Your task to perform on an android device: add a contact in the contacts app Image 0: 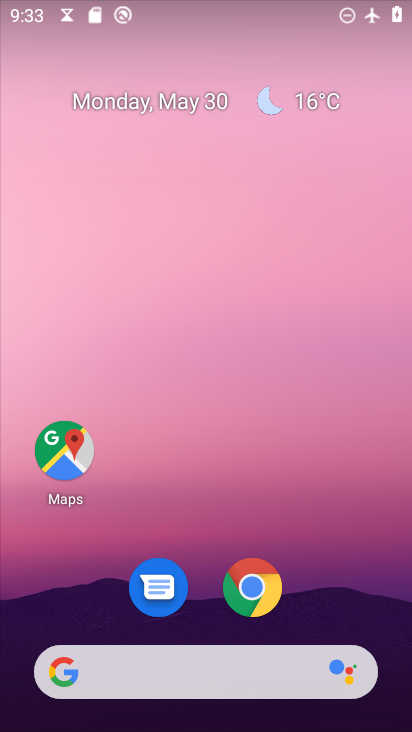
Step 0: drag from (155, 677) to (341, 141)
Your task to perform on an android device: add a contact in the contacts app Image 1: 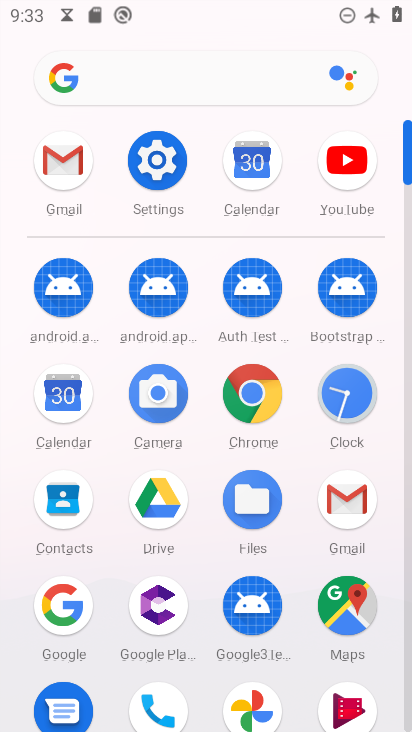
Step 1: click (65, 511)
Your task to perform on an android device: add a contact in the contacts app Image 2: 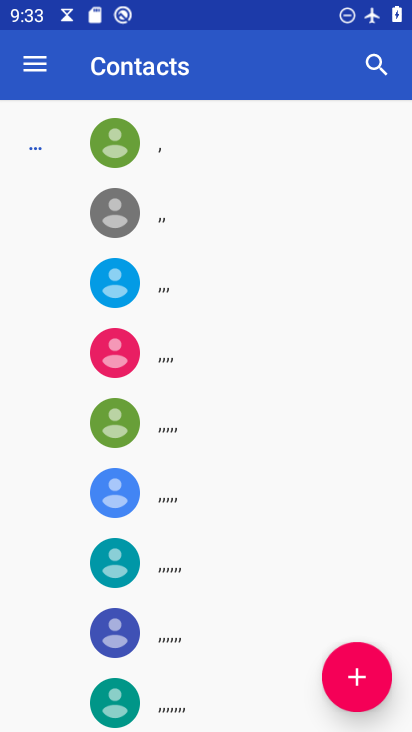
Step 2: click (354, 684)
Your task to perform on an android device: add a contact in the contacts app Image 3: 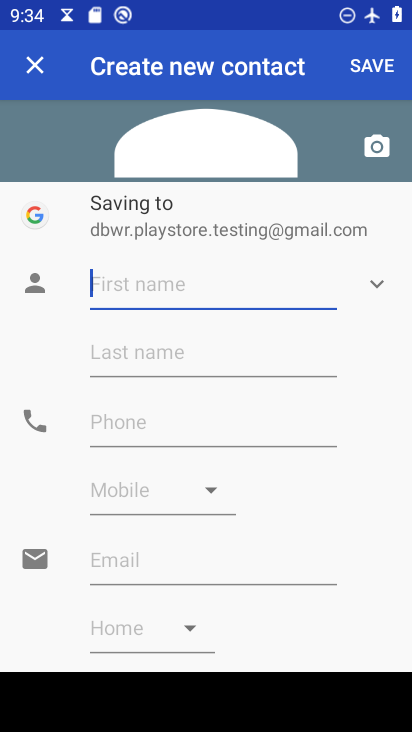
Step 3: type "mjuiii"
Your task to perform on an android device: add a contact in the contacts app Image 4: 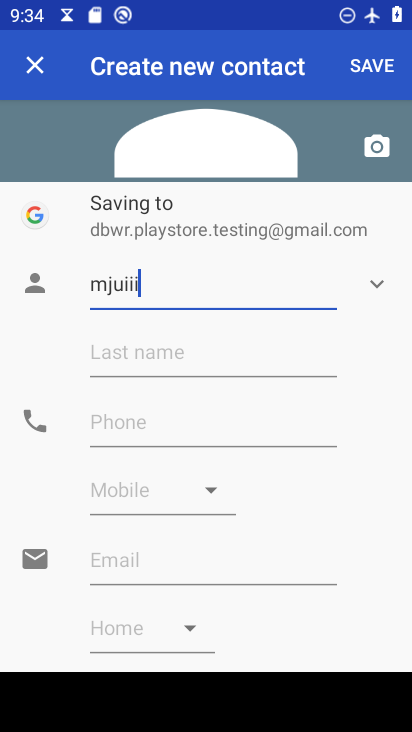
Step 4: click (135, 424)
Your task to perform on an android device: add a contact in the contacts app Image 5: 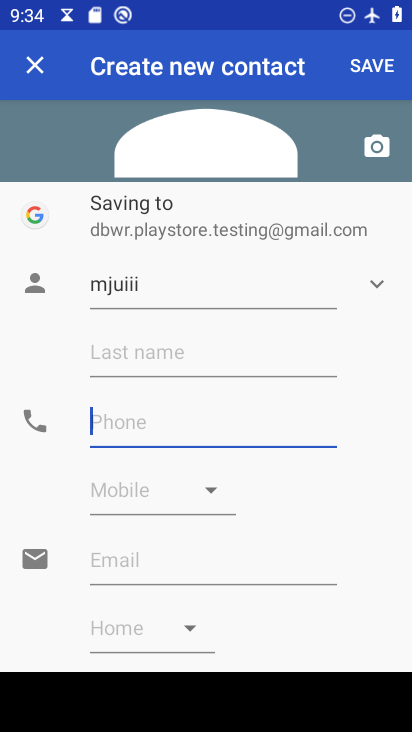
Step 5: type "6566677"
Your task to perform on an android device: add a contact in the contacts app Image 6: 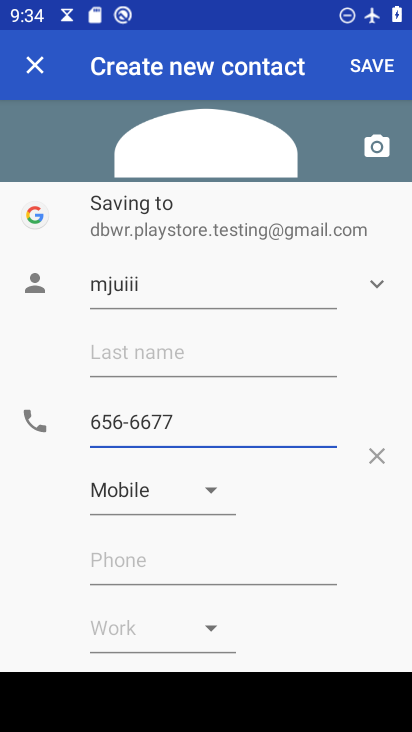
Step 6: click (381, 68)
Your task to perform on an android device: add a contact in the contacts app Image 7: 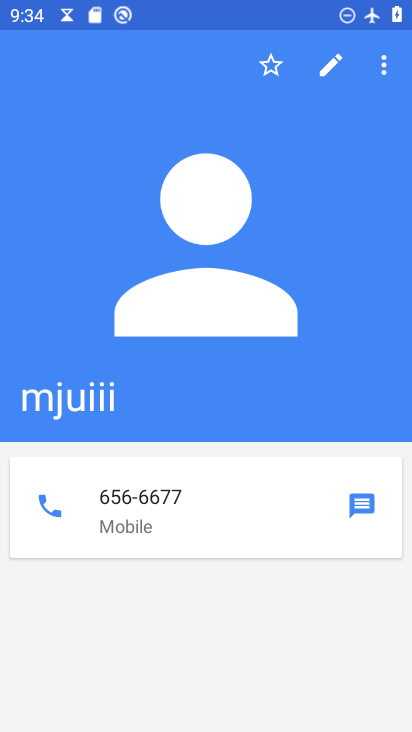
Step 7: task complete